Your task to perform on an android device: Add "logitech g910" to the cart on bestbuy.com, then select checkout. Image 0: 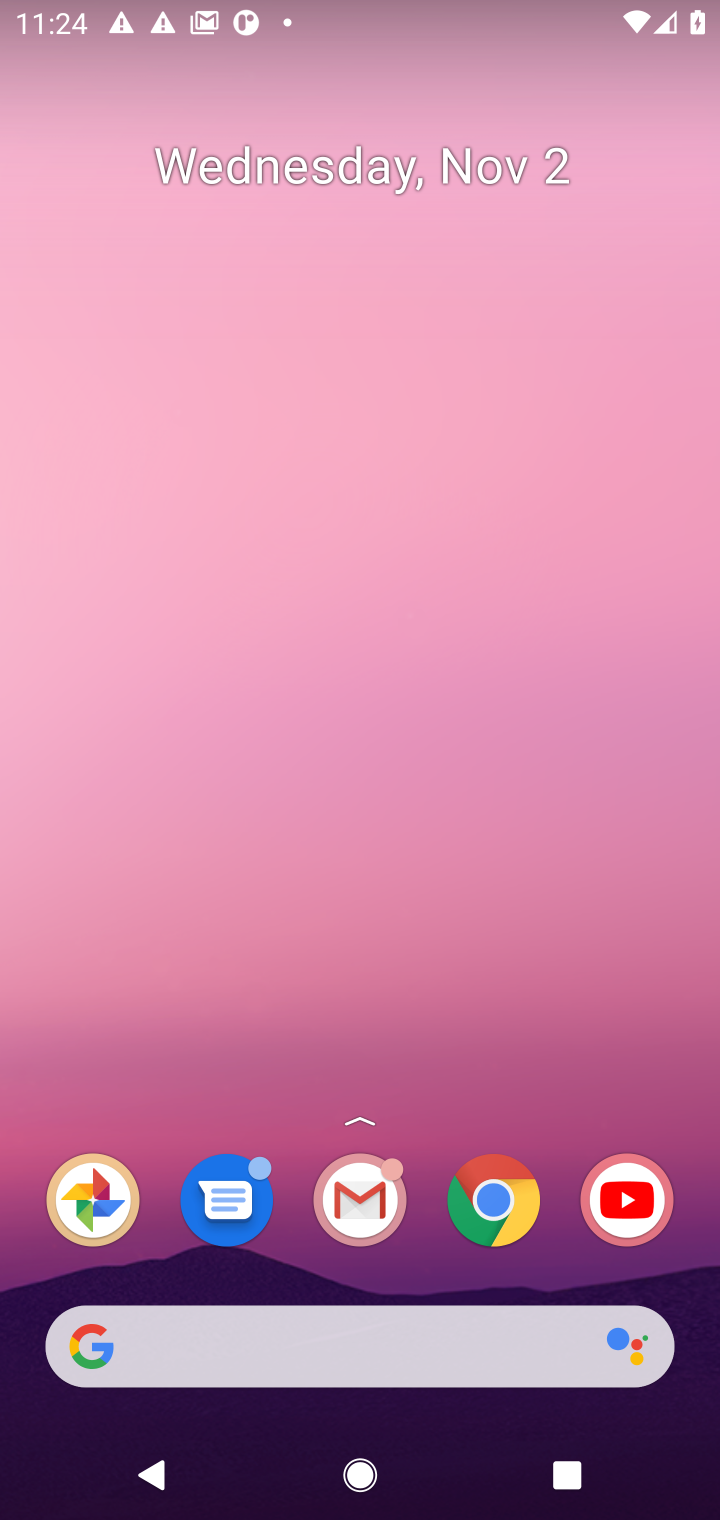
Step 0: click (494, 1188)
Your task to perform on an android device: Add "logitech g910" to the cart on bestbuy.com, then select checkout. Image 1: 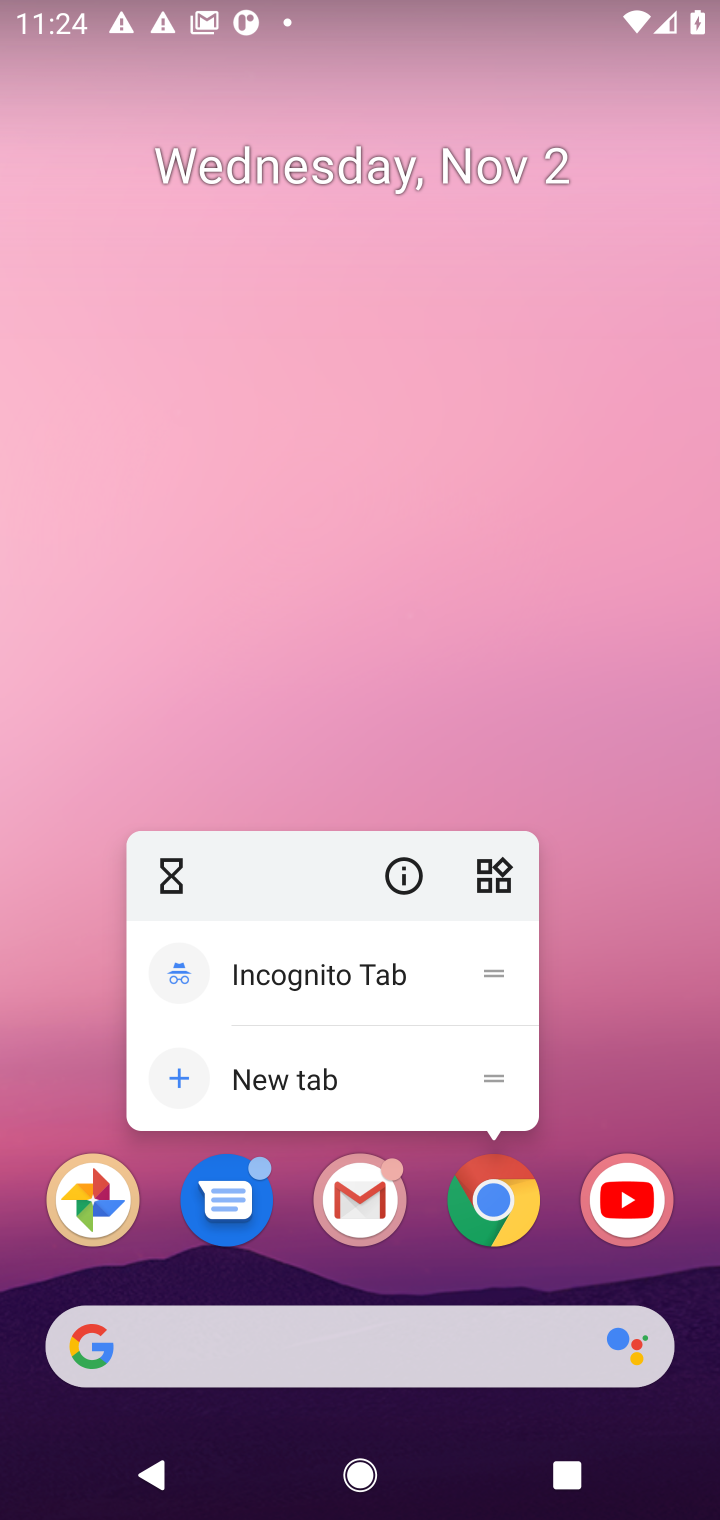
Step 1: click (494, 1188)
Your task to perform on an android device: Add "logitech g910" to the cart on bestbuy.com, then select checkout. Image 2: 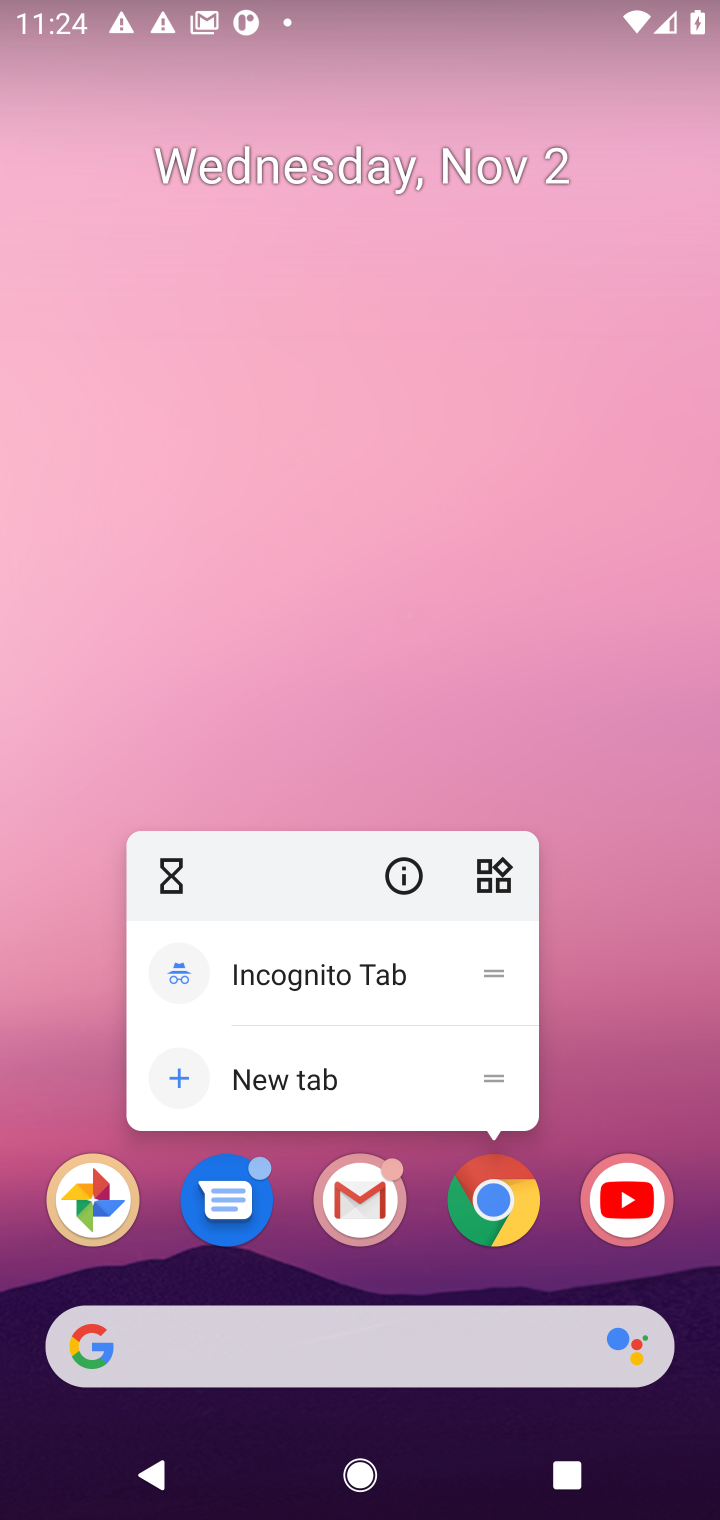
Step 2: click (494, 1188)
Your task to perform on an android device: Add "logitech g910" to the cart on bestbuy.com, then select checkout. Image 3: 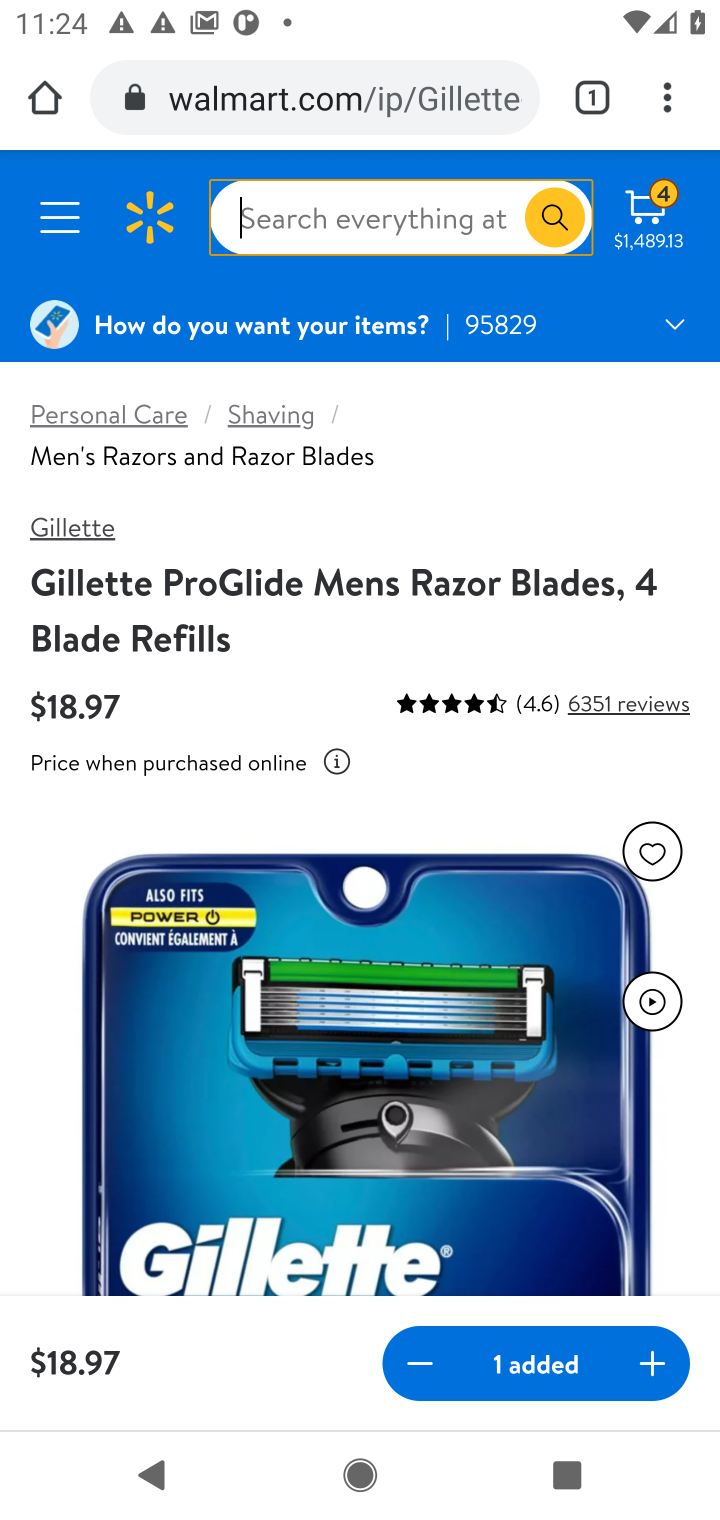
Step 3: click (368, 102)
Your task to perform on an android device: Add "logitech g910" to the cart on bestbuy.com, then select checkout. Image 4: 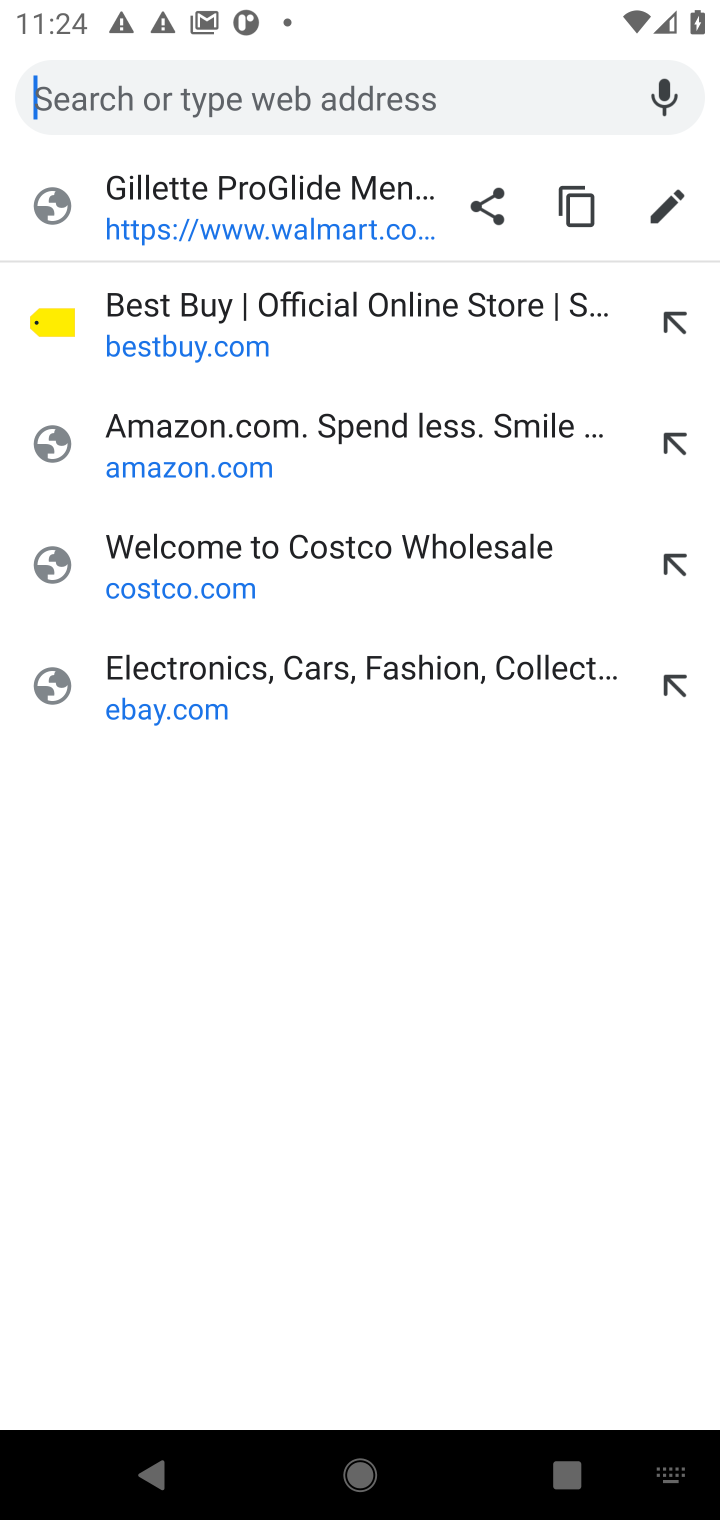
Step 4: press enter
Your task to perform on an android device: Add "logitech g910" to the cart on bestbuy.com, then select checkout. Image 5: 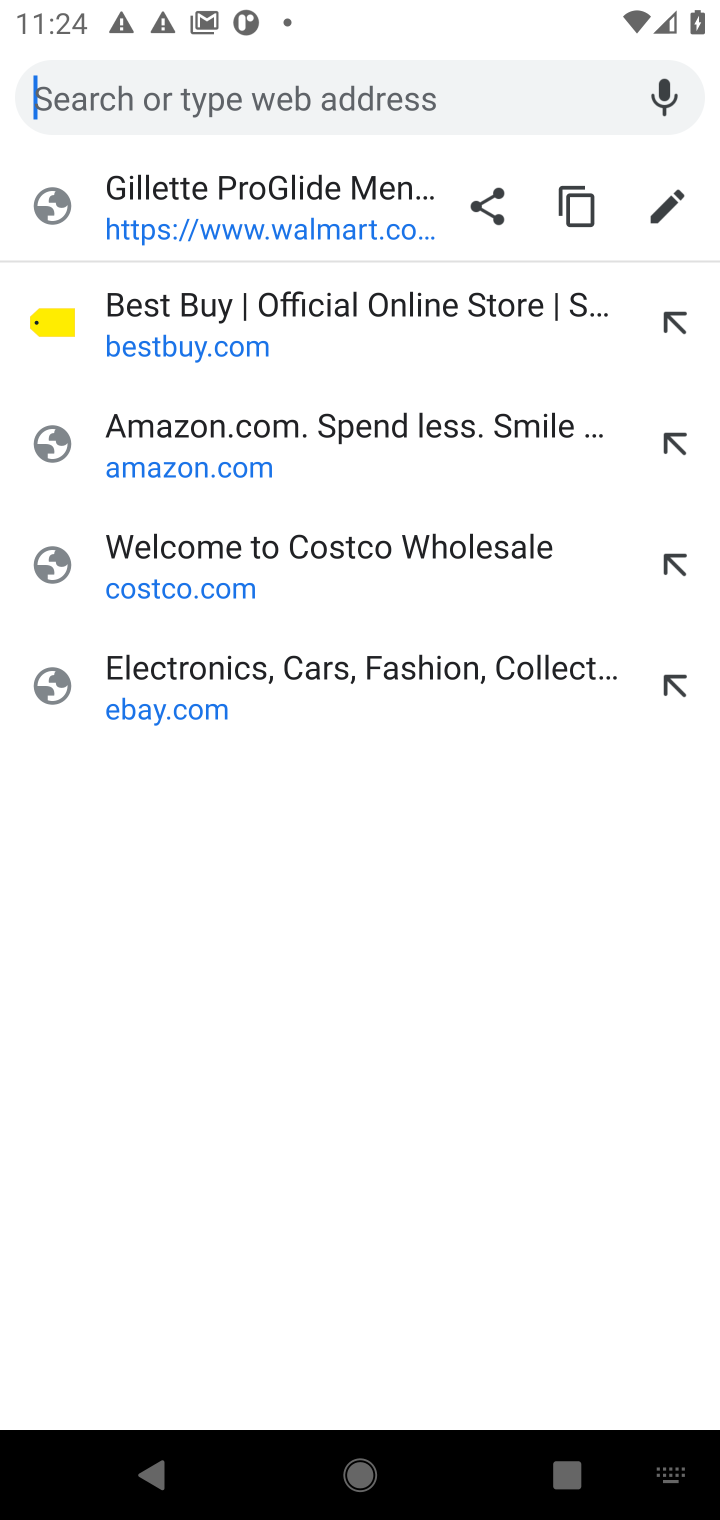
Step 5: type "bestbuy.com"
Your task to perform on an android device: Add "logitech g910" to the cart on bestbuy.com, then select checkout. Image 6: 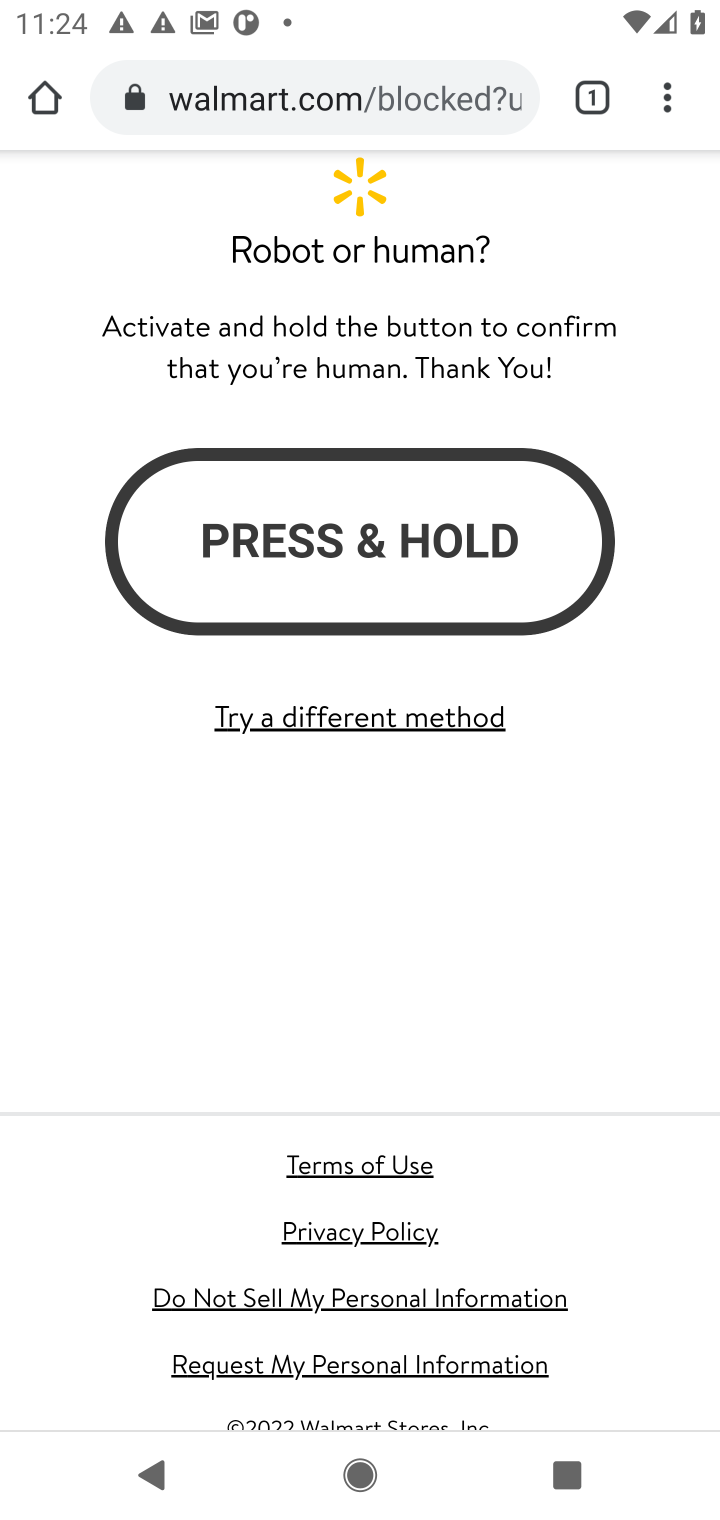
Step 6: click (47, 106)
Your task to perform on an android device: Add "logitech g910" to the cart on bestbuy.com, then select checkout. Image 7: 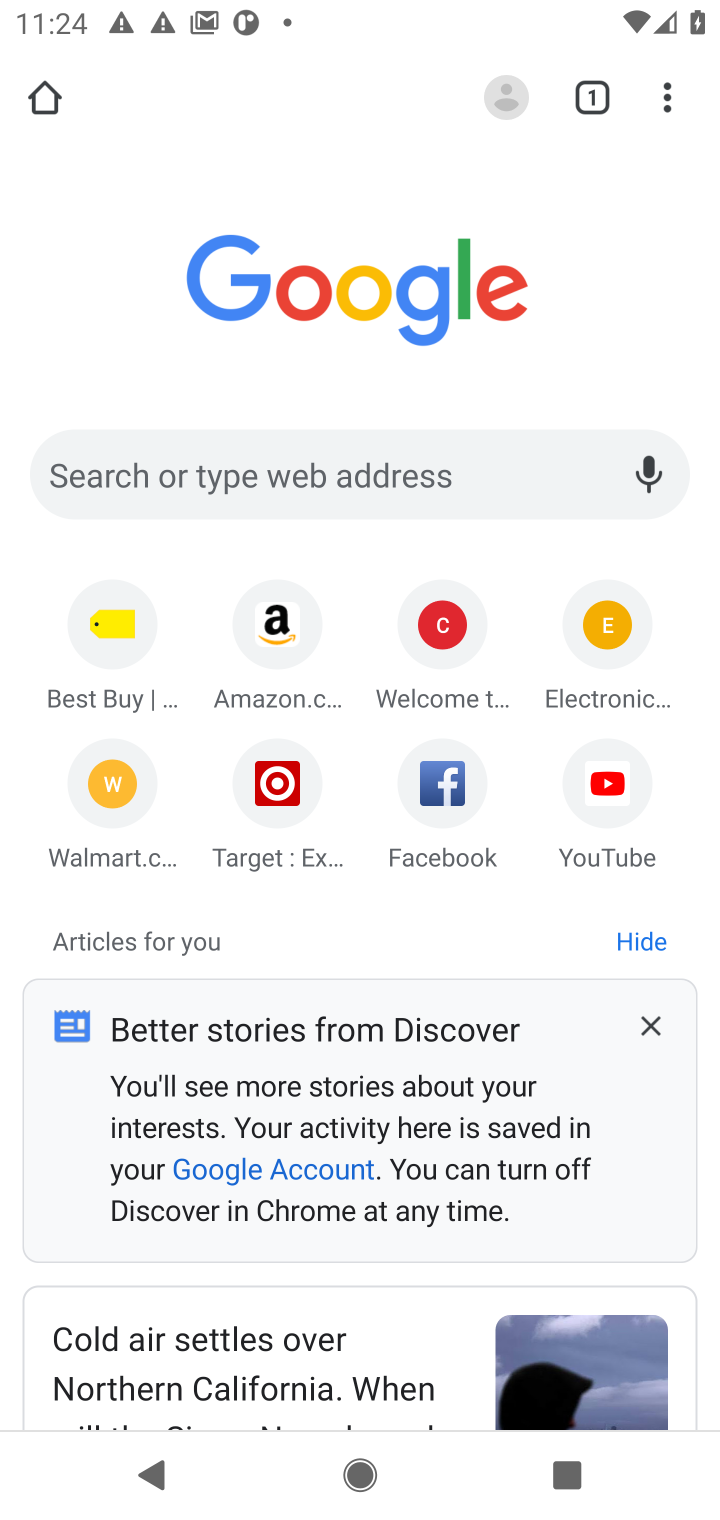
Step 7: click (446, 474)
Your task to perform on an android device: Add "logitech g910" to the cart on bestbuy.com, then select checkout. Image 8: 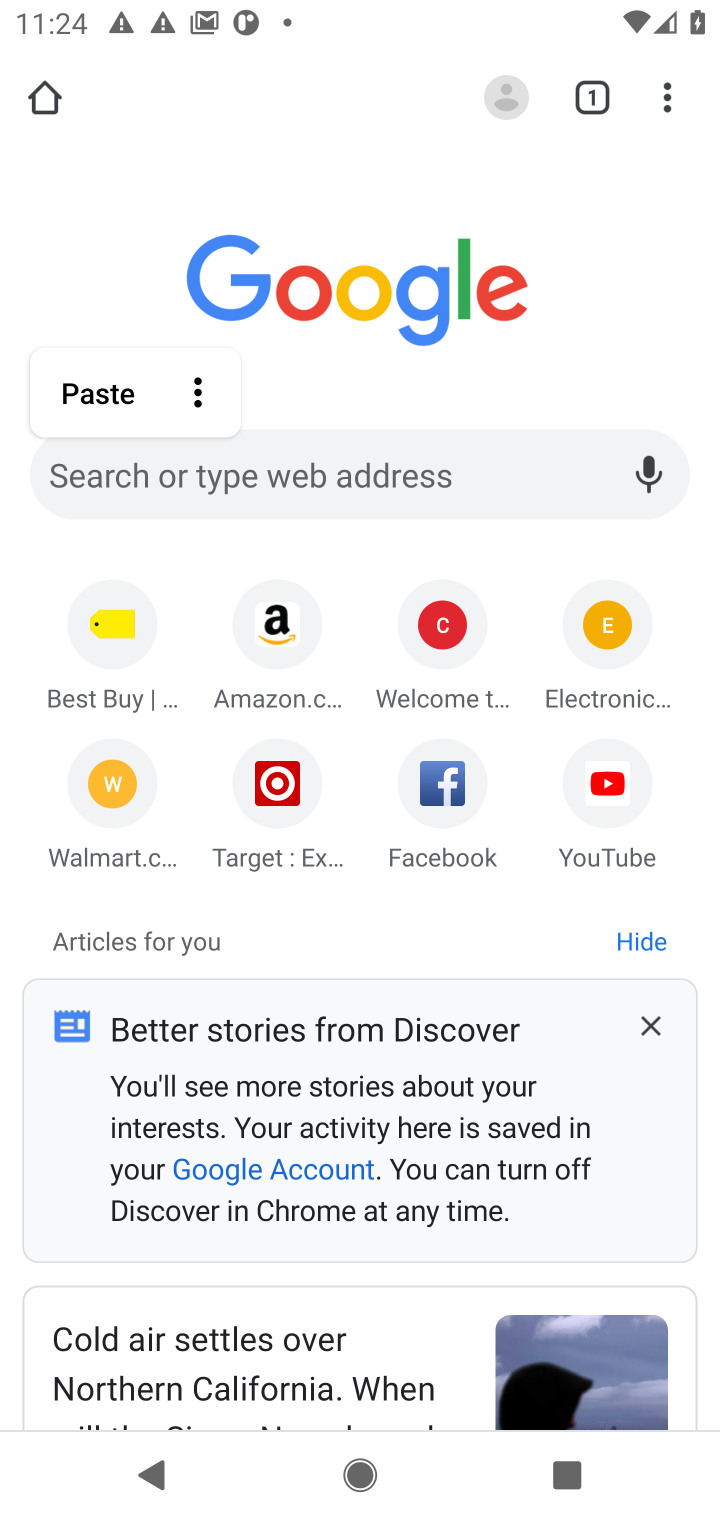
Step 8: click (487, 460)
Your task to perform on an android device: Add "logitech g910" to the cart on bestbuy.com, then select checkout. Image 9: 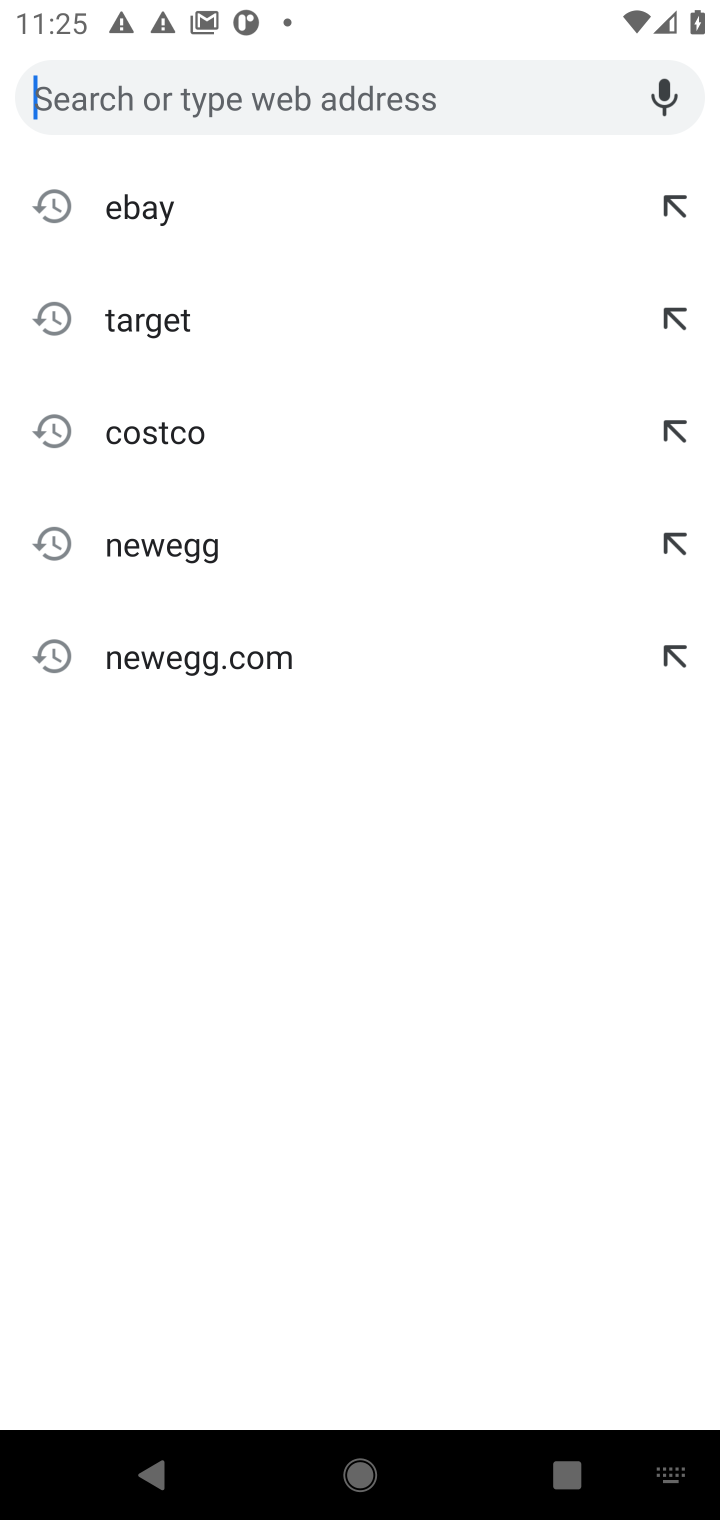
Step 9: type "bestbuy.com"
Your task to perform on an android device: Add "logitech g910" to the cart on bestbuy.com, then select checkout. Image 10: 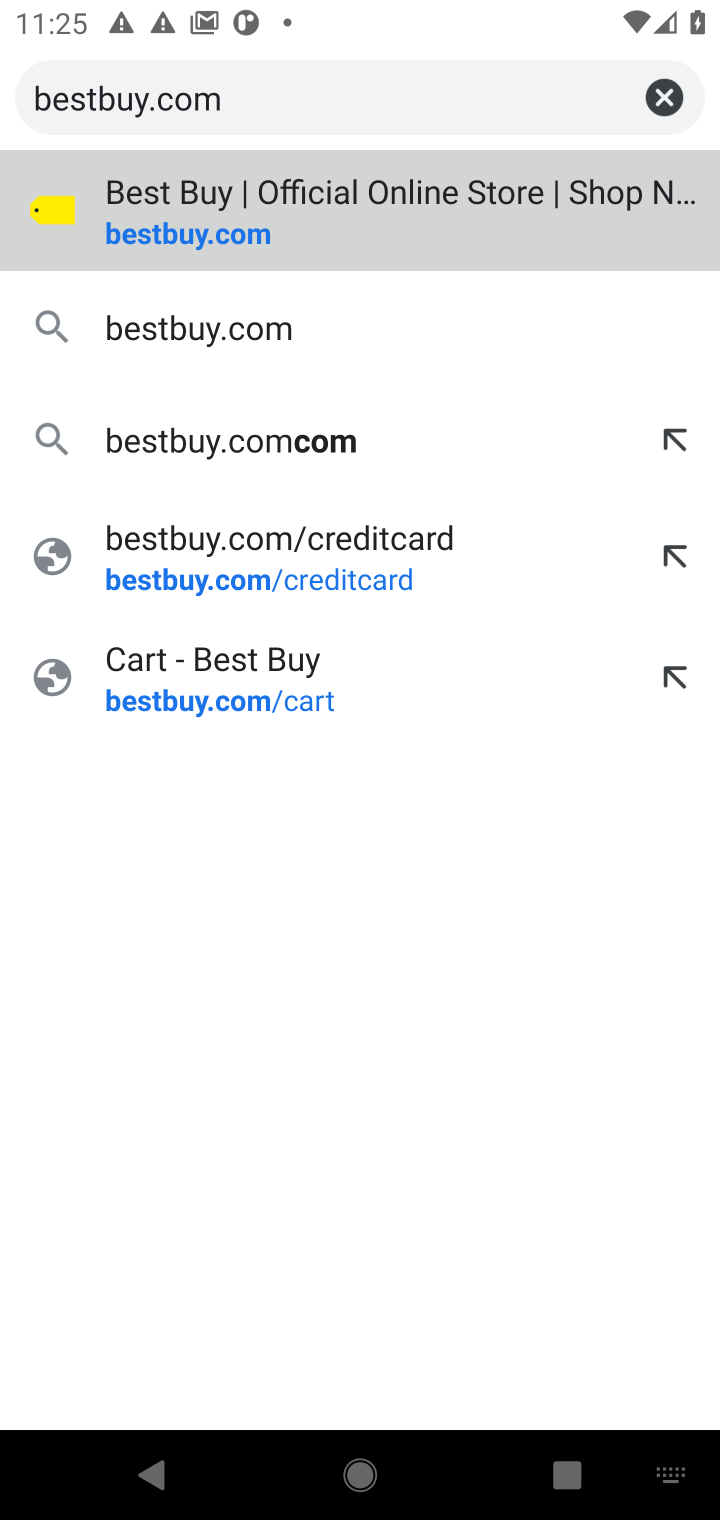
Step 10: press enter
Your task to perform on an android device: Add "logitech g910" to the cart on bestbuy.com, then select checkout. Image 11: 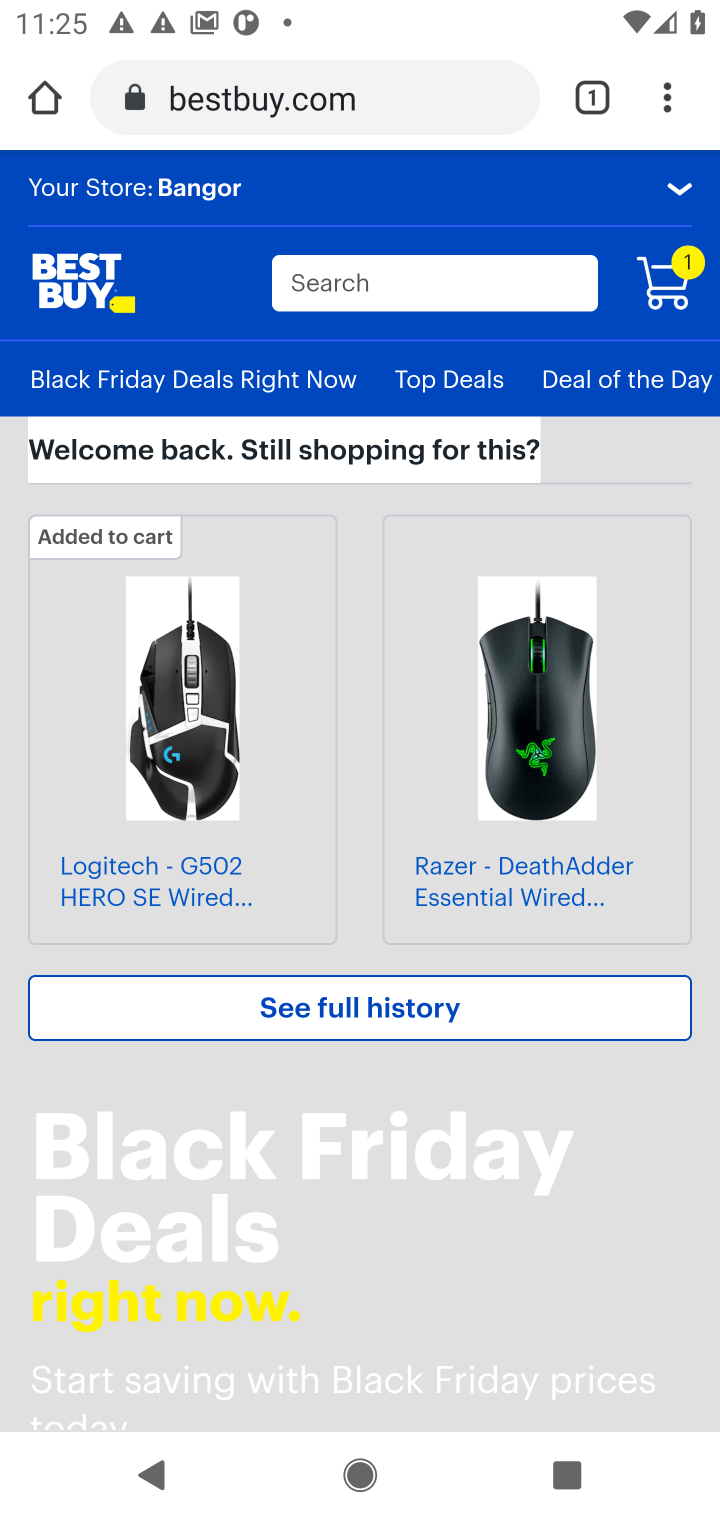
Step 11: click (41, 107)
Your task to perform on an android device: Add "logitech g910" to the cart on bestbuy.com, then select checkout. Image 12: 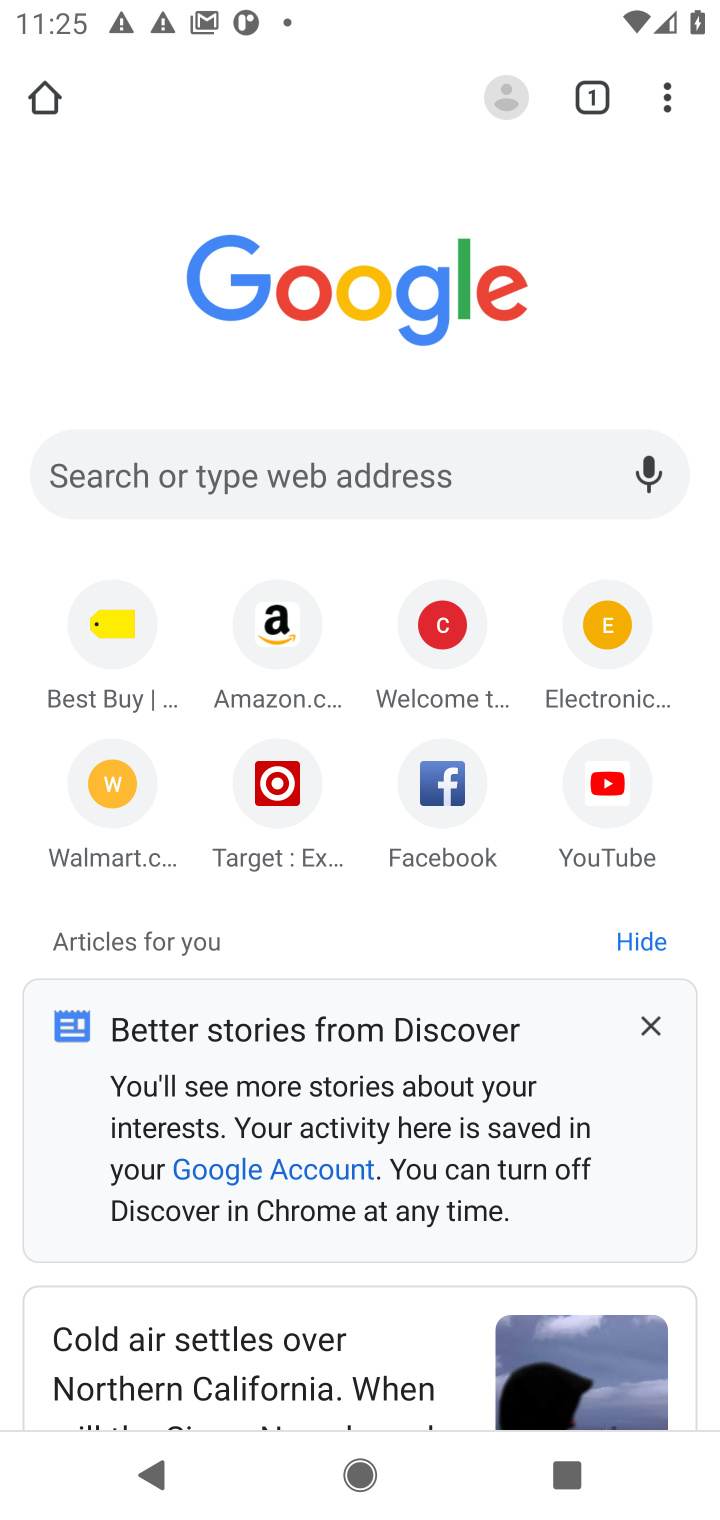
Step 12: click (367, 478)
Your task to perform on an android device: Add "logitech g910" to the cart on bestbuy.com, then select checkout. Image 13: 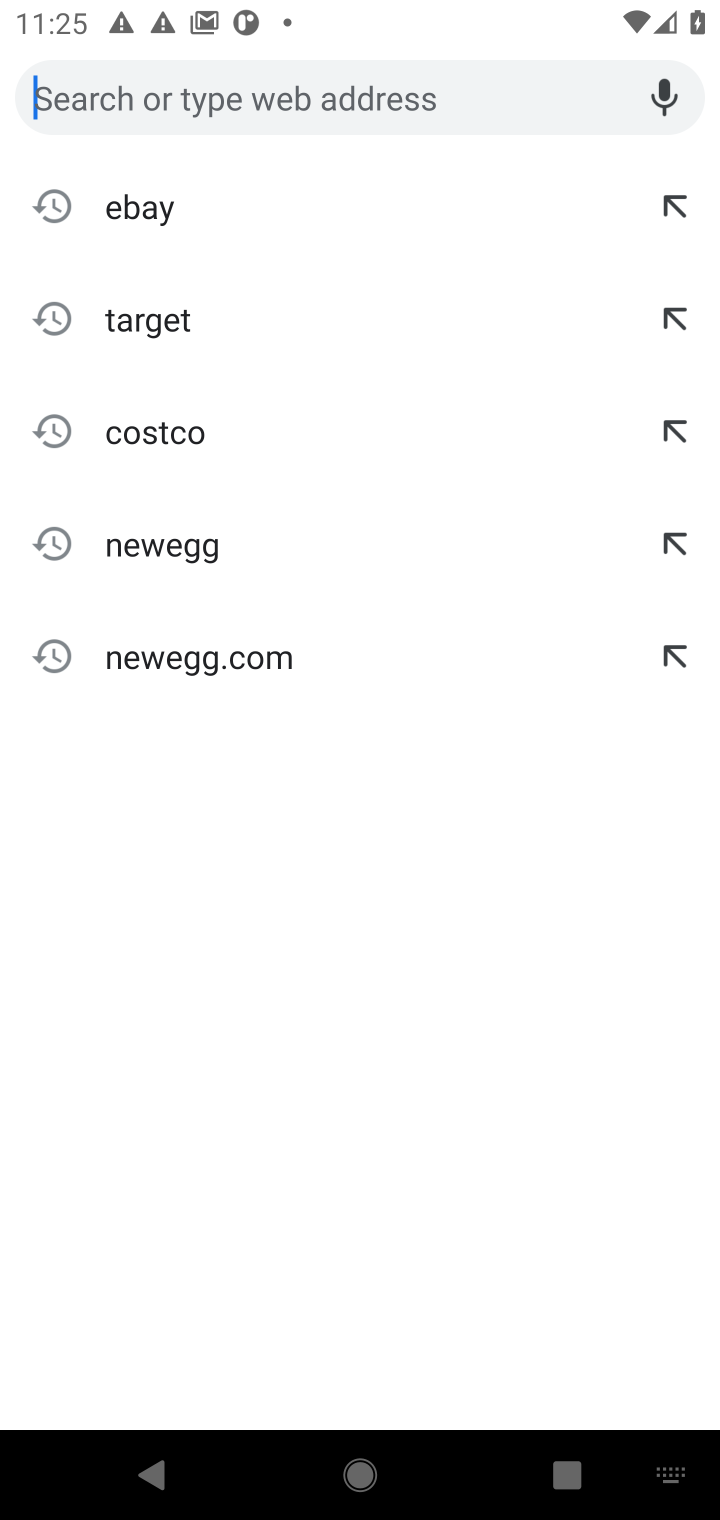
Step 13: type "bestbuy.com"
Your task to perform on an android device: Add "logitech g910" to the cart on bestbuy.com, then select checkout. Image 14: 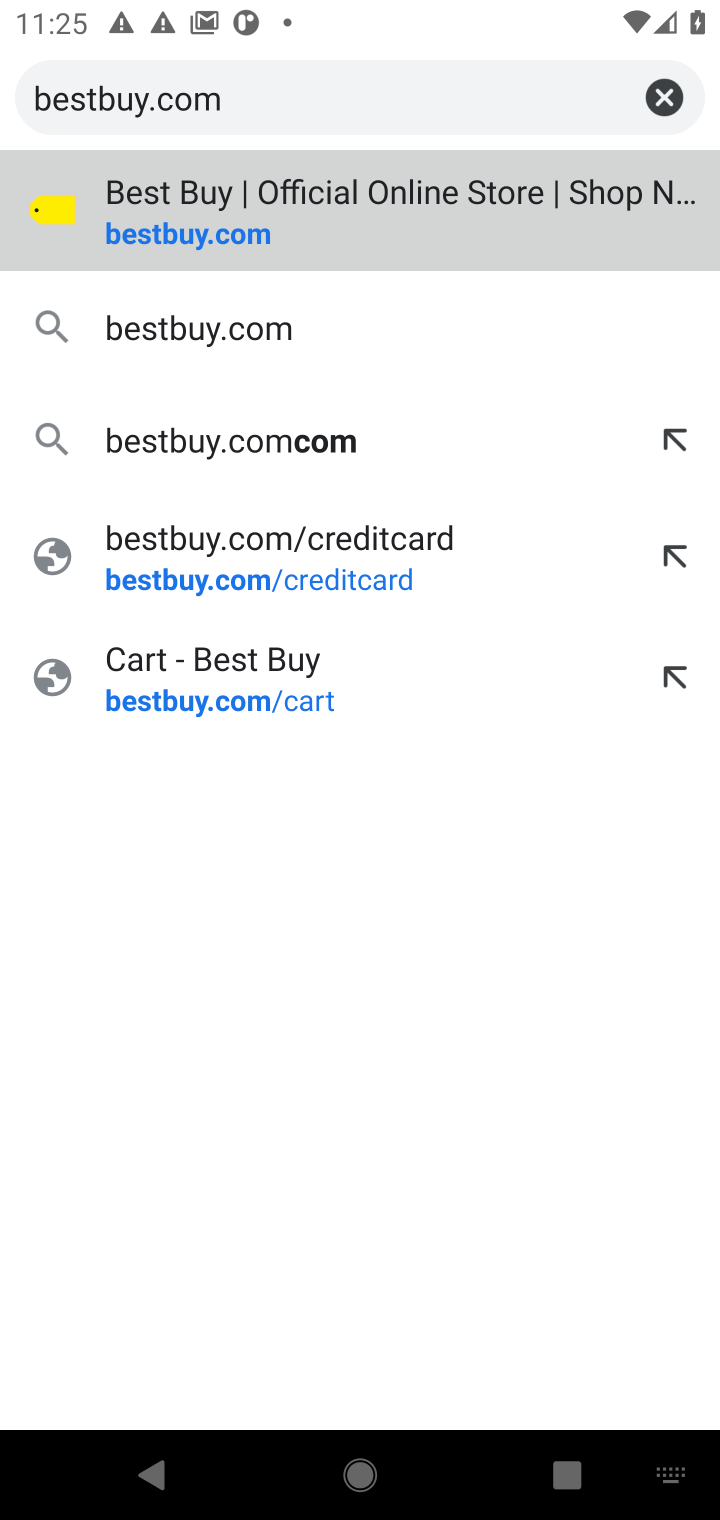
Step 14: press enter
Your task to perform on an android device: Add "logitech g910" to the cart on bestbuy.com, then select checkout. Image 15: 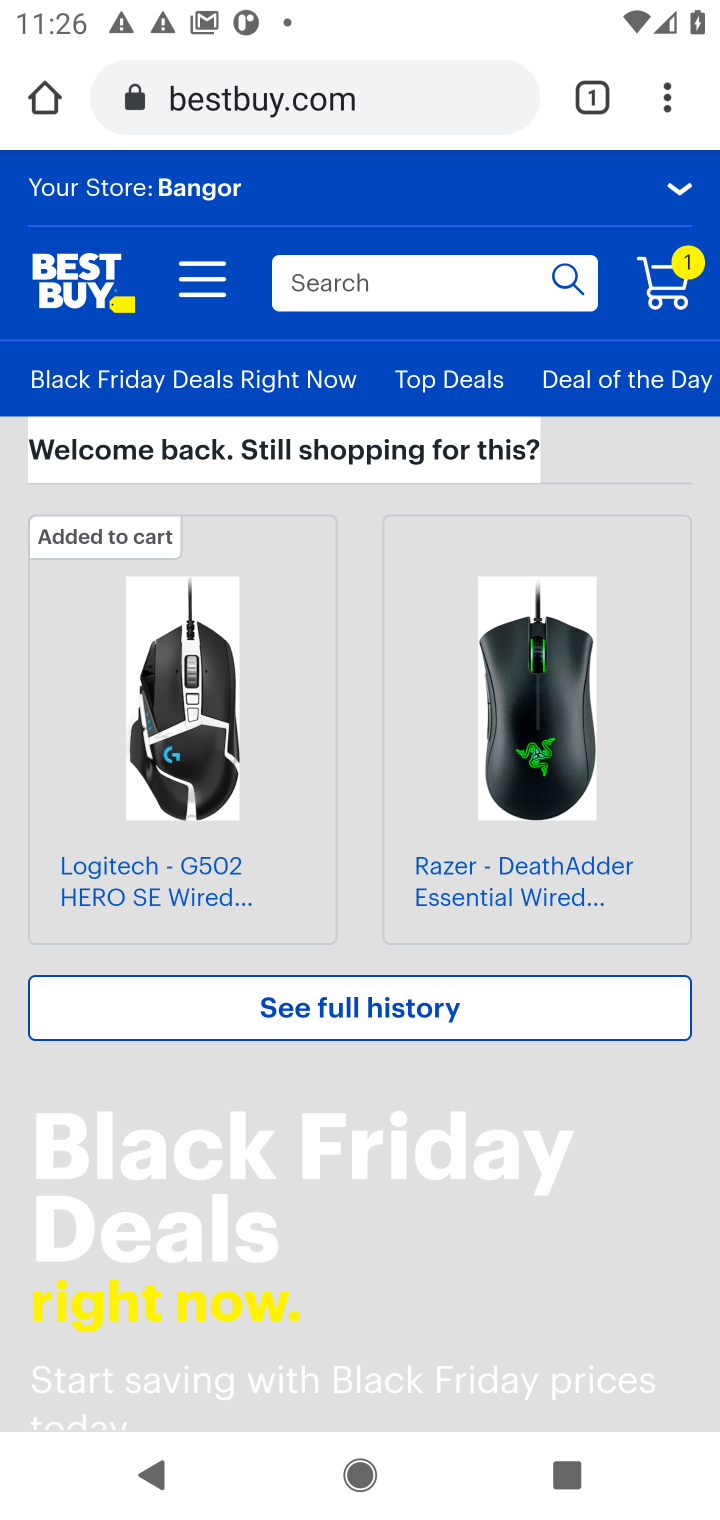
Step 15: click (422, 275)
Your task to perform on an android device: Add "logitech g910" to the cart on bestbuy.com, then select checkout. Image 16: 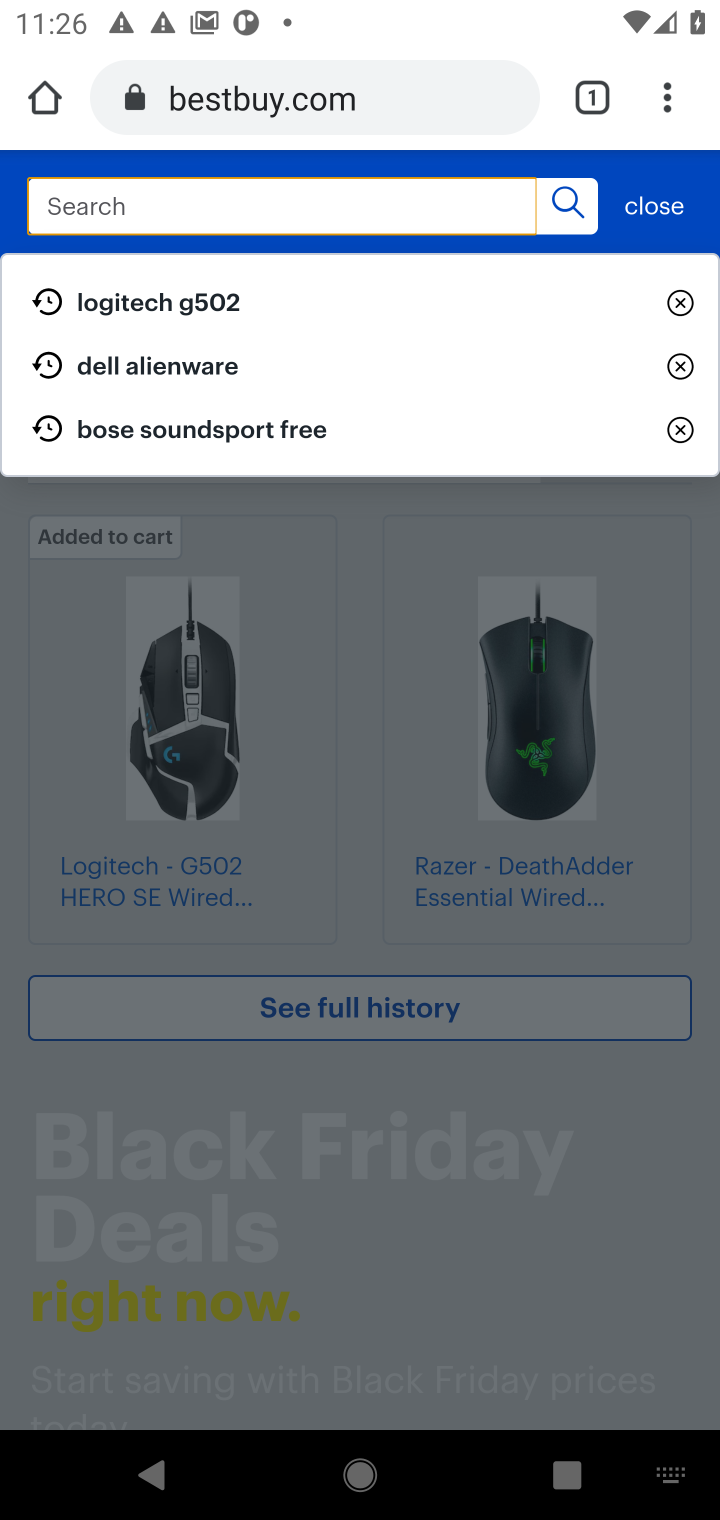
Step 16: type "logitech g910"
Your task to perform on an android device: Add "logitech g910" to the cart on bestbuy.com, then select checkout. Image 17: 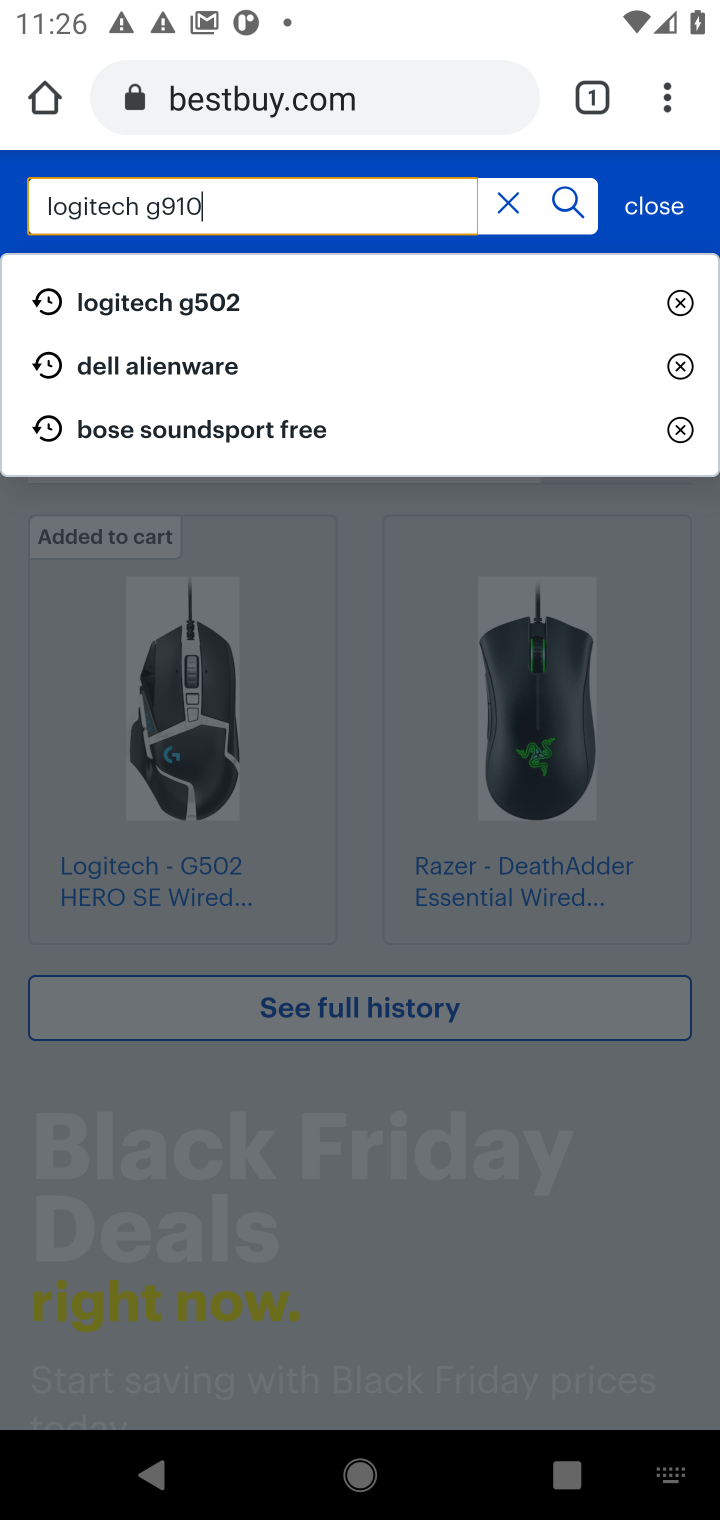
Step 17: press enter
Your task to perform on an android device: Add "logitech g910" to the cart on bestbuy.com, then select checkout. Image 18: 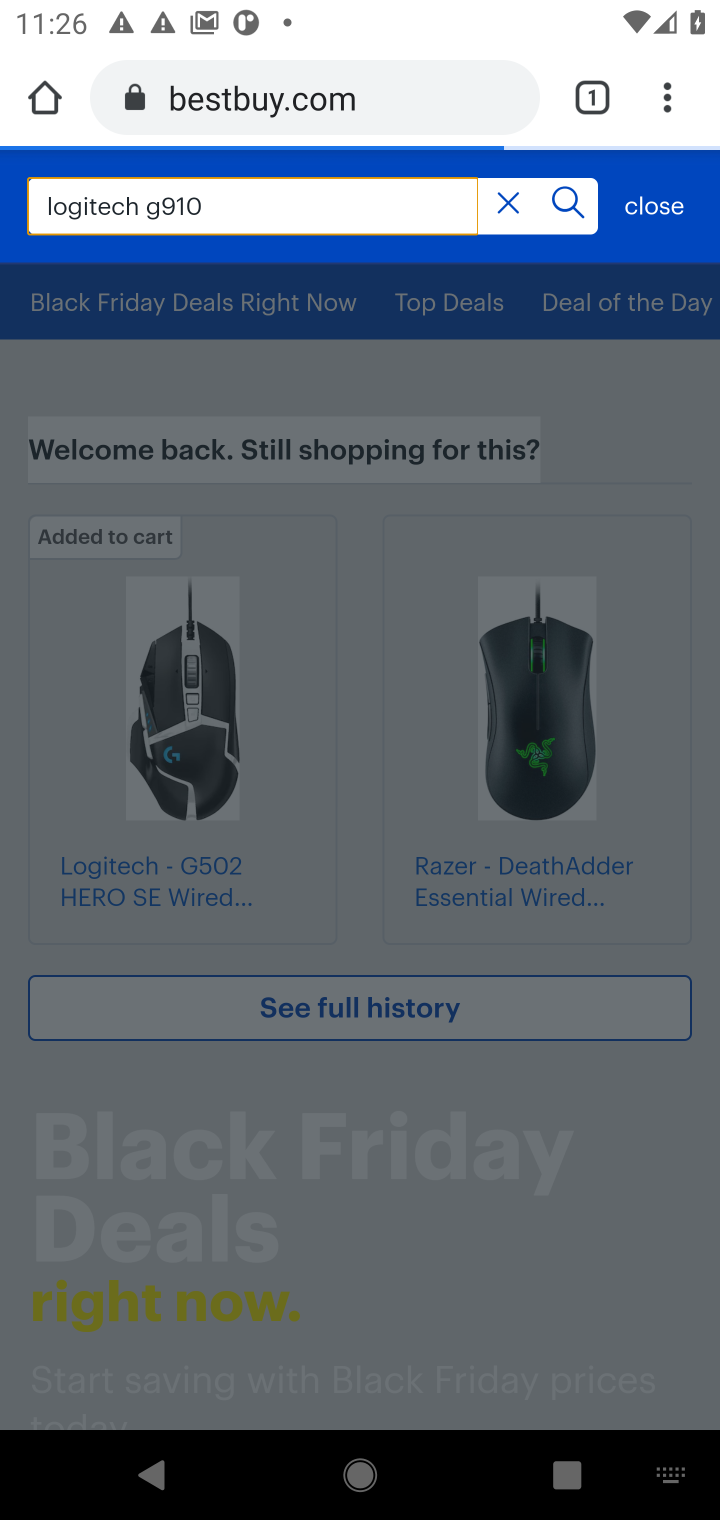
Step 18: click (590, 373)
Your task to perform on an android device: Add "logitech g910" to the cart on bestbuy.com, then select checkout. Image 19: 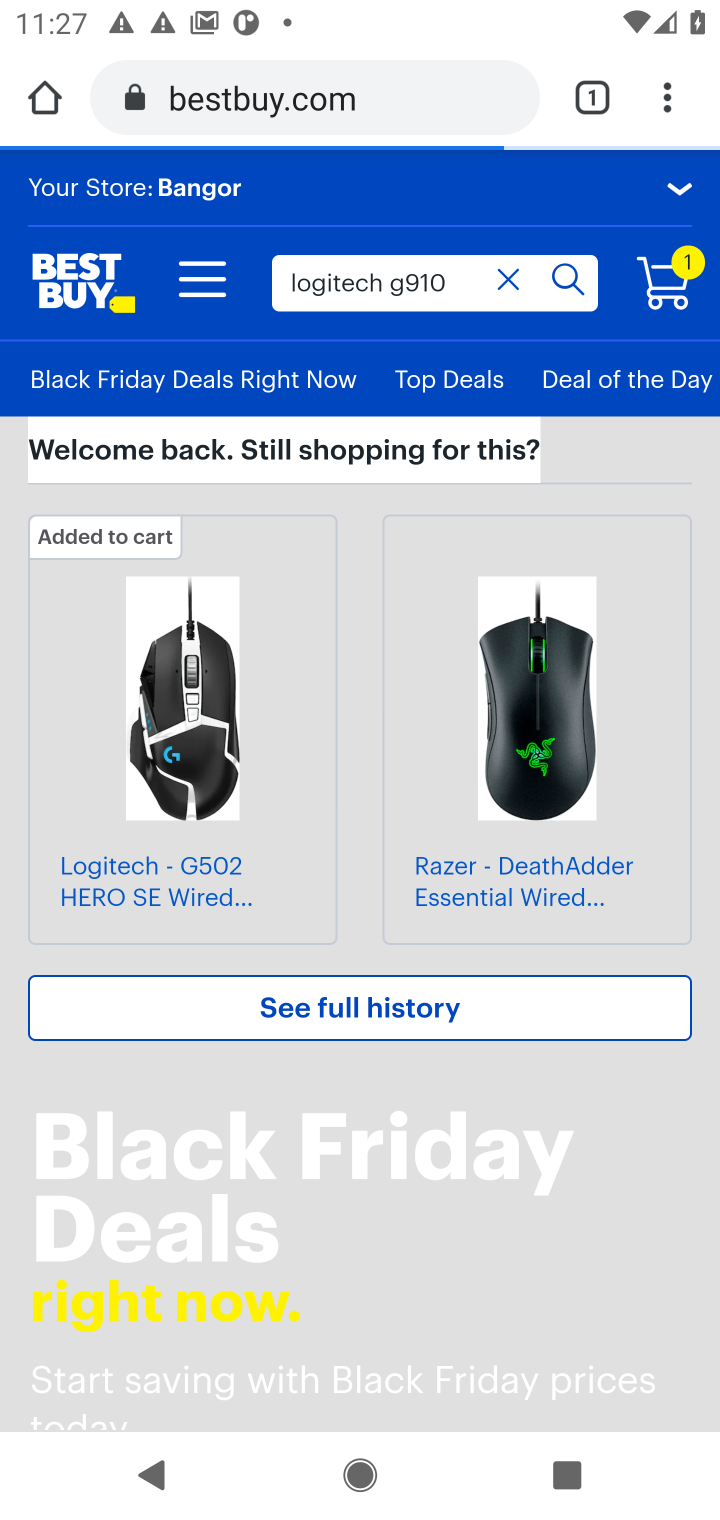
Step 19: click (410, 1143)
Your task to perform on an android device: Add "logitech g910" to the cart on bestbuy.com, then select checkout. Image 20: 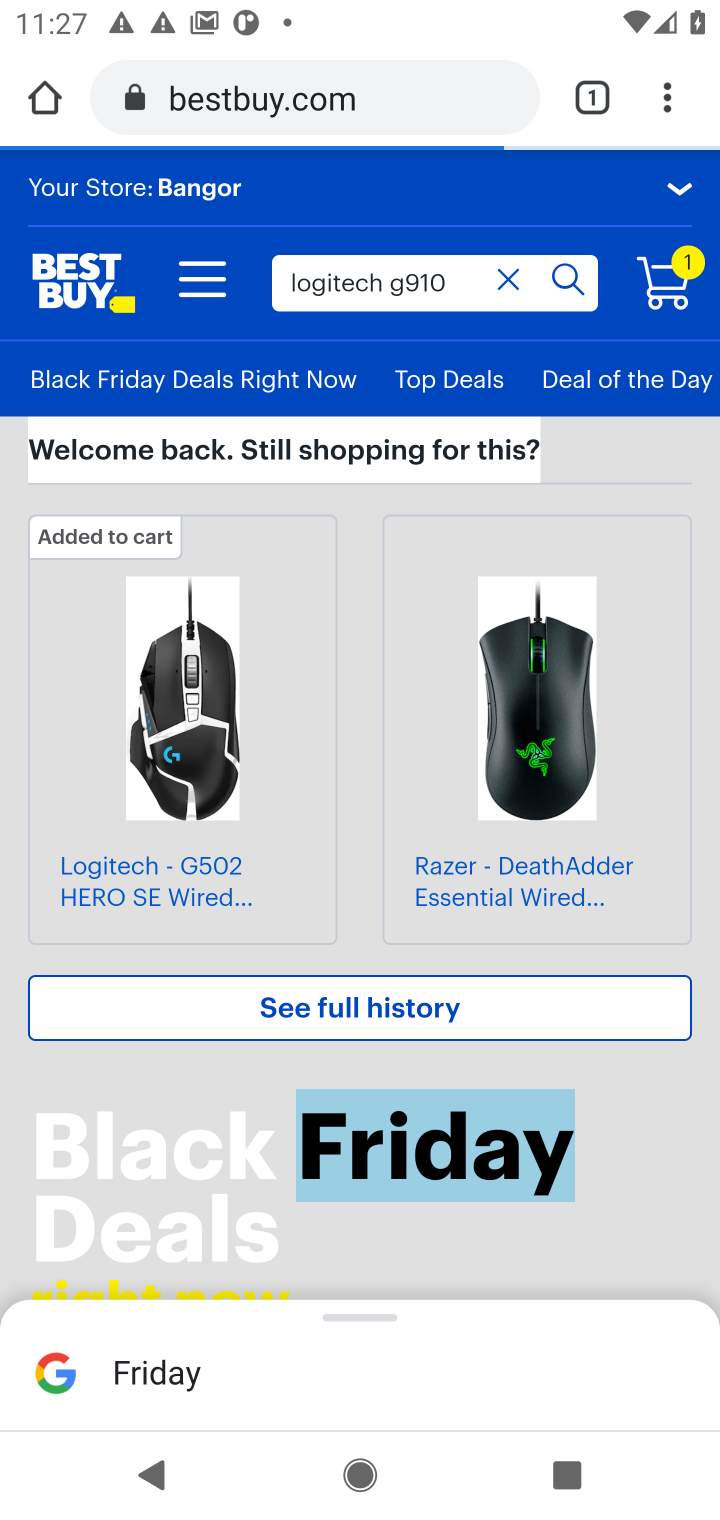
Step 20: task complete